Your task to perform on an android device: Go to battery settings Image 0: 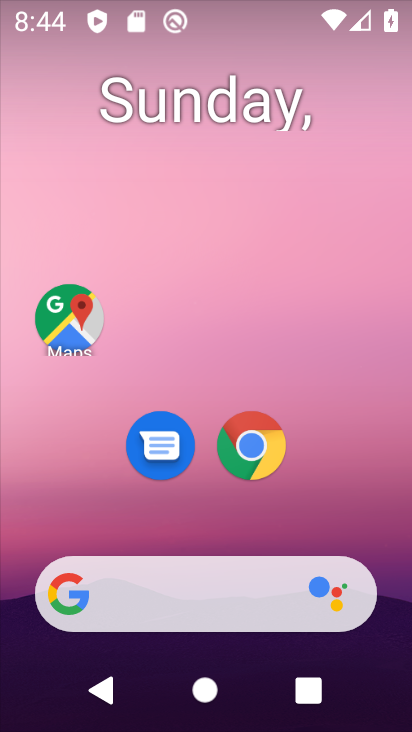
Step 0: drag from (314, 520) to (260, 68)
Your task to perform on an android device: Go to battery settings Image 1: 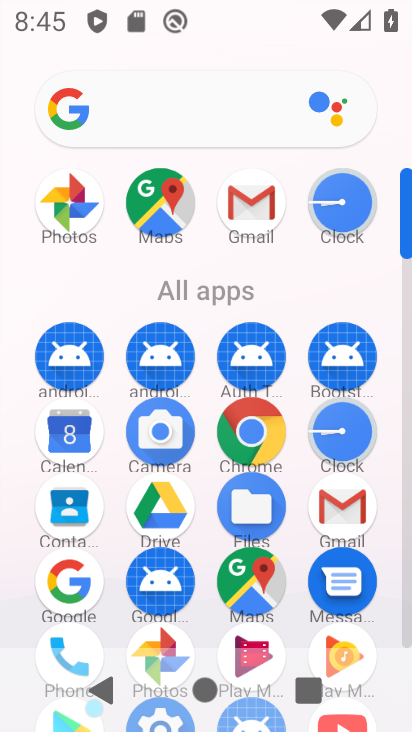
Step 1: drag from (199, 535) to (187, 258)
Your task to perform on an android device: Go to battery settings Image 2: 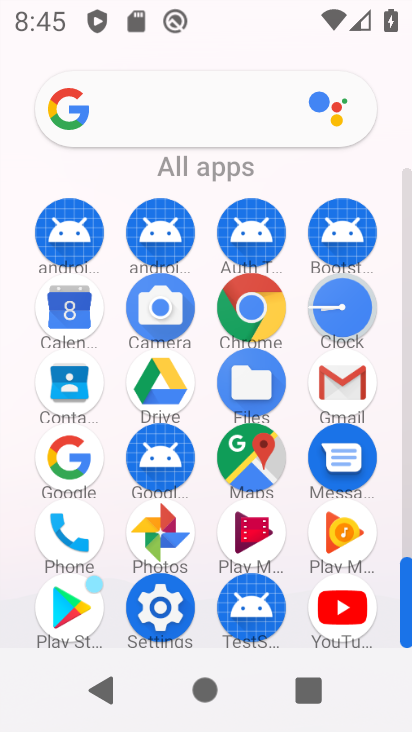
Step 2: click (168, 603)
Your task to perform on an android device: Go to battery settings Image 3: 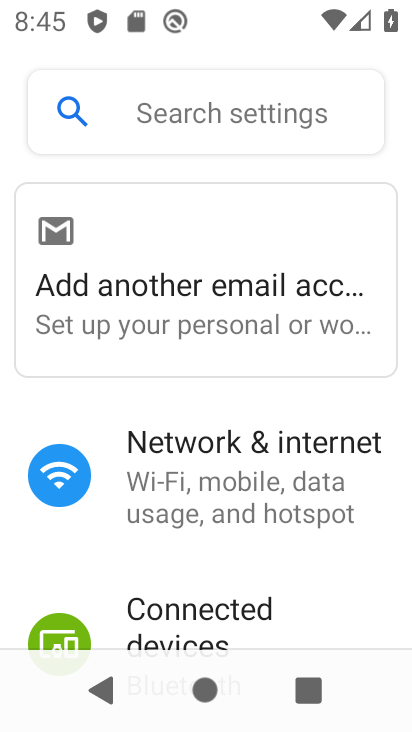
Step 3: drag from (205, 556) to (187, 263)
Your task to perform on an android device: Go to battery settings Image 4: 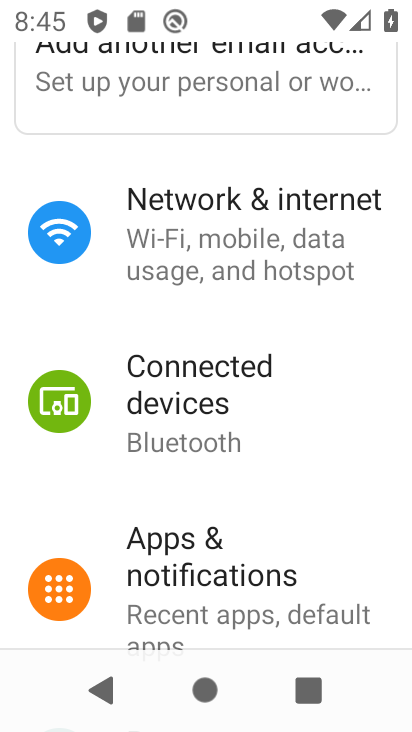
Step 4: drag from (189, 481) to (182, 171)
Your task to perform on an android device: Go to battery settings Image 5: 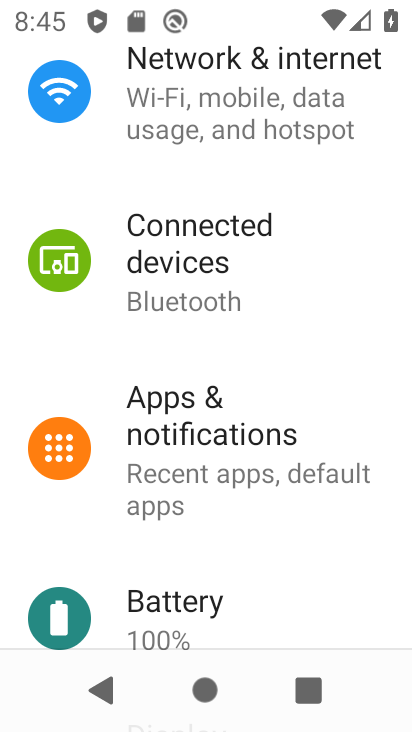
Step 5: drag from (173, 562) to (166, 334)
Your task to perform on an android device: Go to battery settings Image 6: 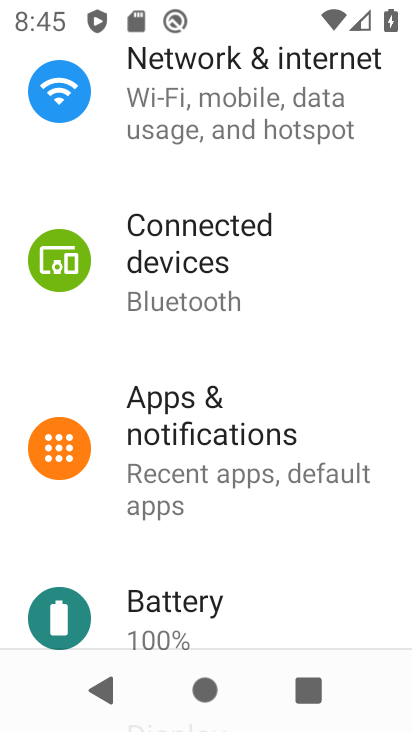
Step 6: click (179, 592)
Your task to perform on an android device: Go to battery settings Image 7: 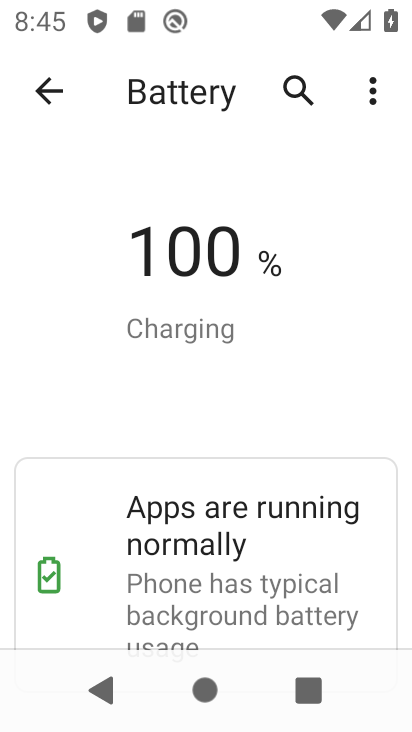
Step 7: task complete